Your task to perform on an android device: turn on javascript in the chrome app Image 0: 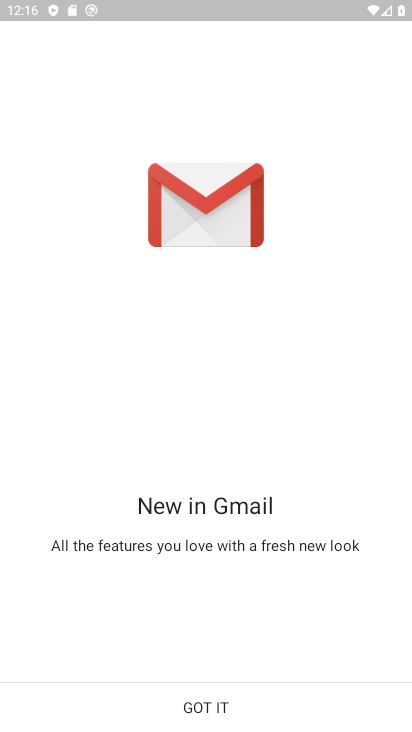
Step 0: click (277, 711)
Your task to perform on an android device: turn on javascript in the chrome app Image 1: 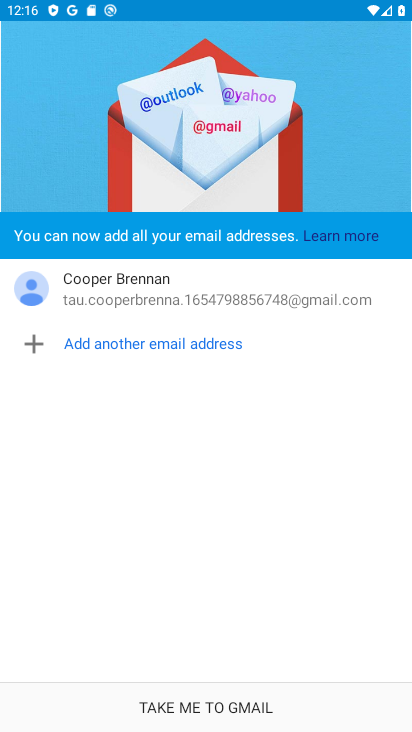
Step 1: click (242, 703)
Your task to perform on an android device: turn on javascript in the chrome app Image 2: 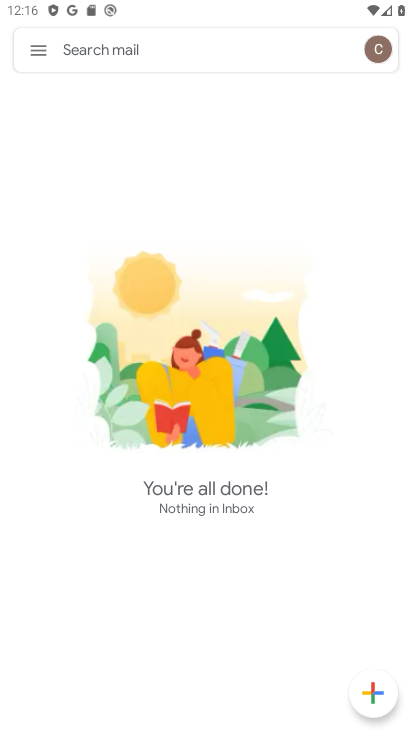
Step 2: press home button
Your task to perform on an android device: turn on javascript in the chrome app Image 3: 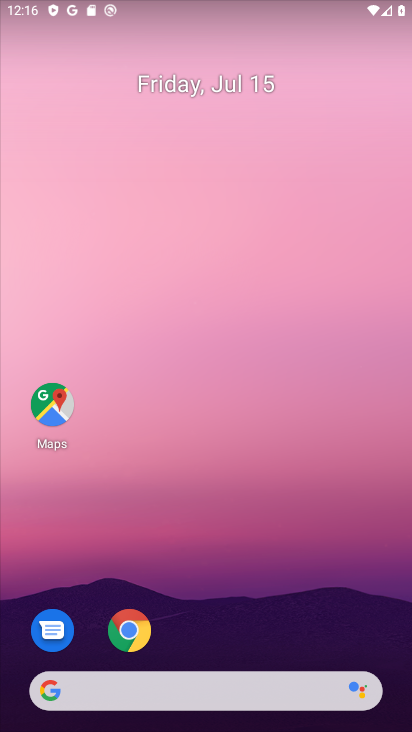
Step 3: click (136, 621)
Your task to perform on an android device: turn on javascript in the chrome app Image 4: 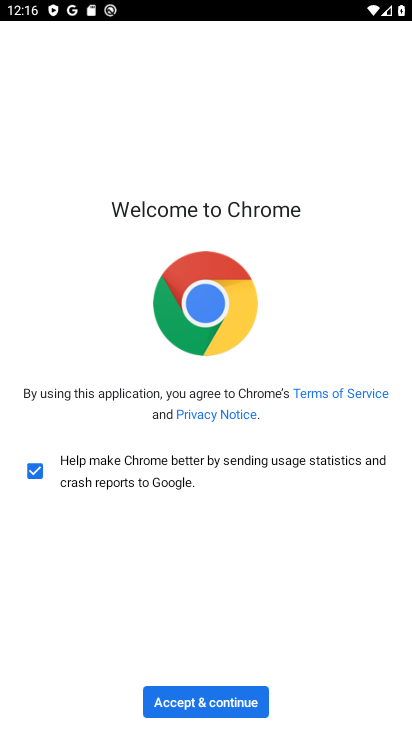
Step 4: click (163, 698)
Your task to perform on an android device: turn on javascript in the chrome app Image 5: 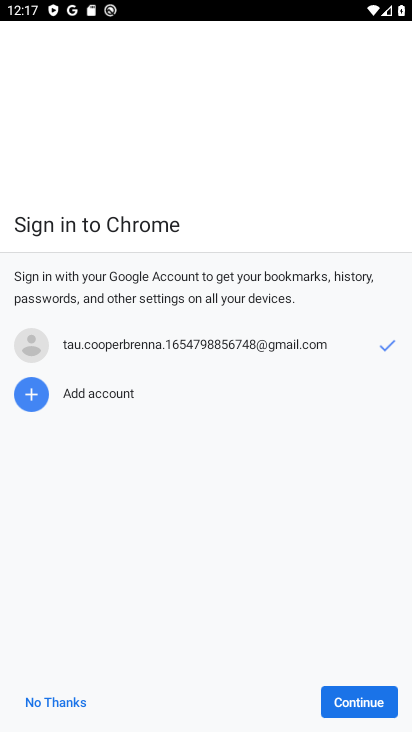
Step 5: click (343, 694)
Your task to perform on an android device: turn on javascript in the chrome app Image 6: 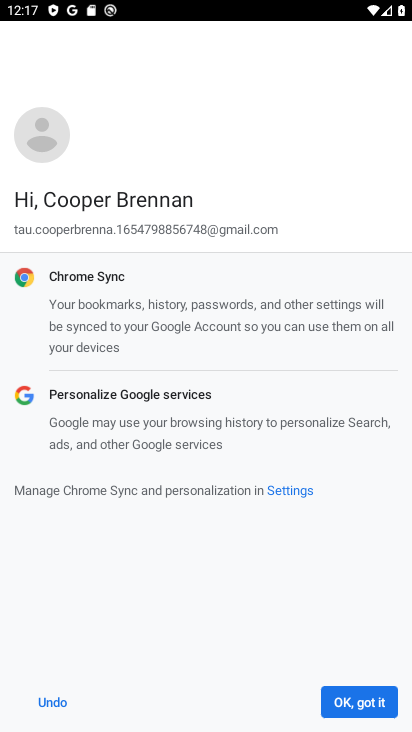
Step 6: click (343, 694)
Your task to perform on an android device: turn on javascript in the chrome app Image 7: 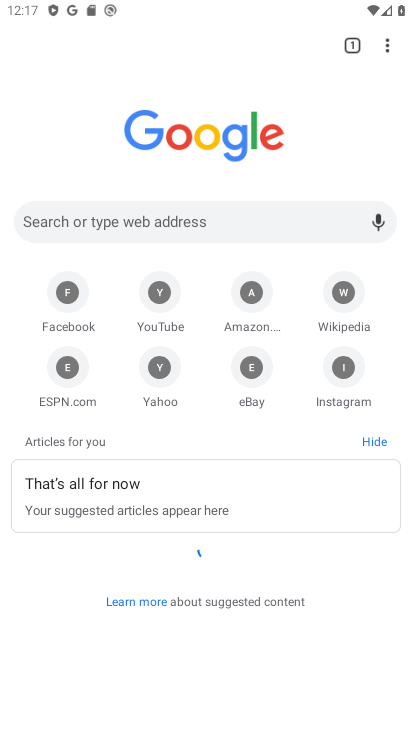
Step 7: click (391, 46)
Your task to perform on an android device: turn on javascript in the chrome app Image 8: 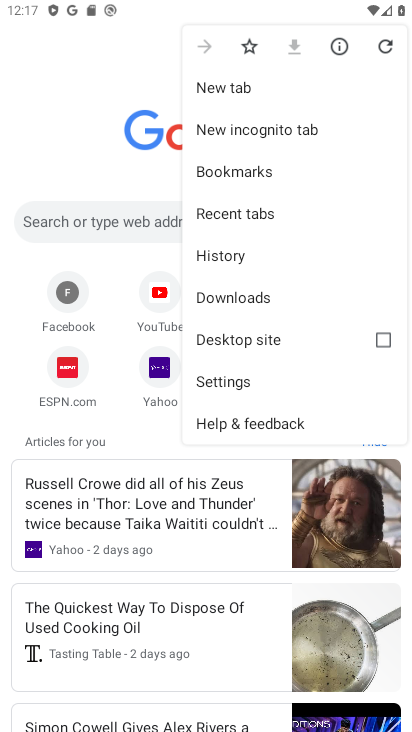
Step 8: click (293, 378)
Your task to perform on an android device: turn on javascript in the chrome app Image 9: 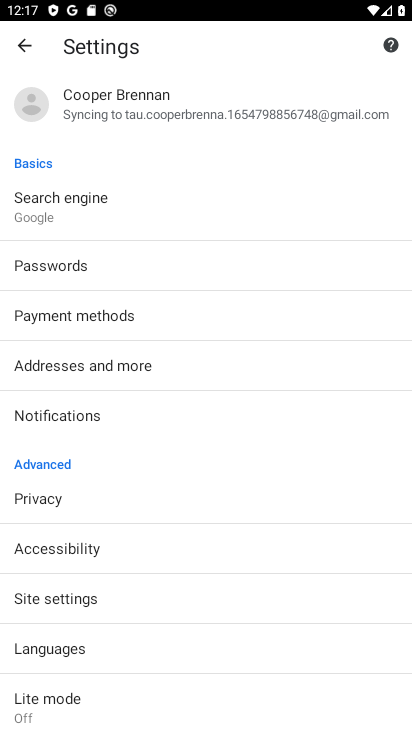
Step 9: click (133, 587)
Your task to perform on an android device: turn on javascript in the chrome app Image 10: 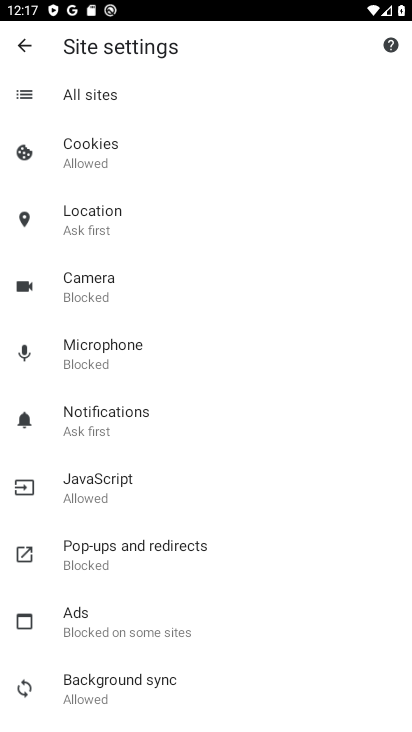
Step 10: click (100, 487)
Your task to perform on an android device: turn on javascript in the chrome app Image 11: 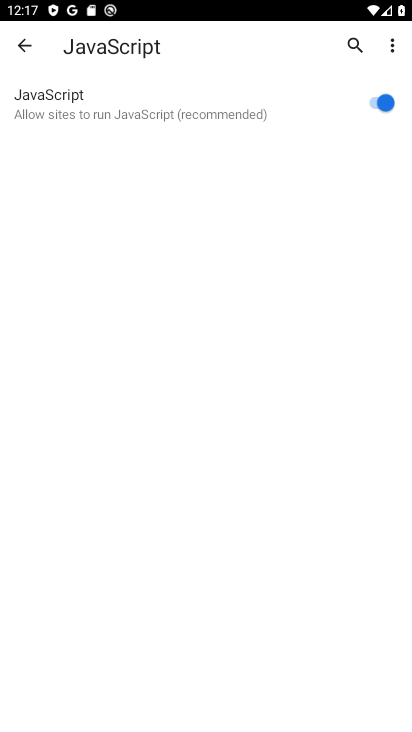
Step 11: task complete